Your task to perform on an android device: delete the emails in spam in the gmail app Image 0: 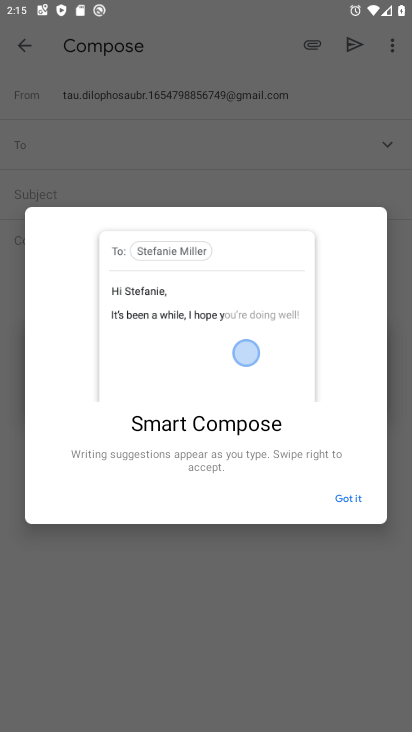
Step 0: press home button
Your task to perform on an android device: delete the emails in spam in the gmail app Image 1: 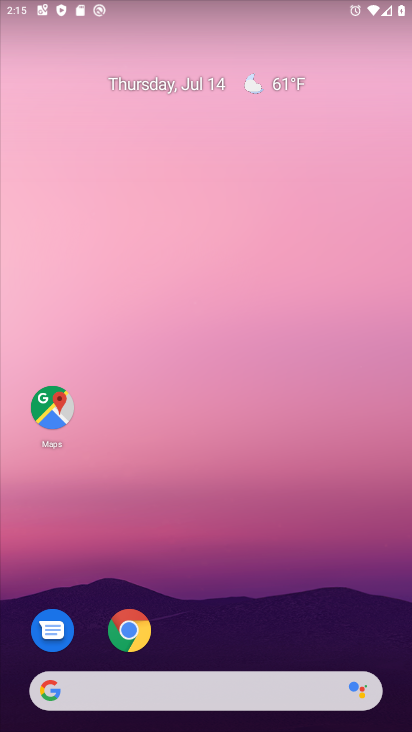
Step 1: drag from (209, 691) to (352, 85)
Your task to perform on an android device: delete the emails in spam in the gmail app Image 2: 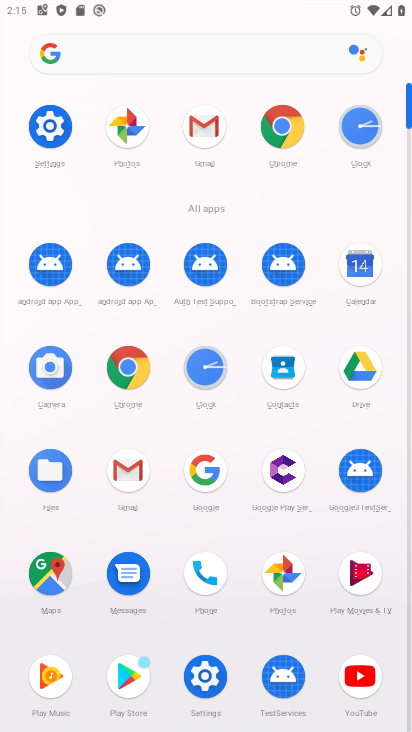
Step 2: click (128, 477)
Your task to perform on an android device: delete the emails in spam in the gmail app Image 3: 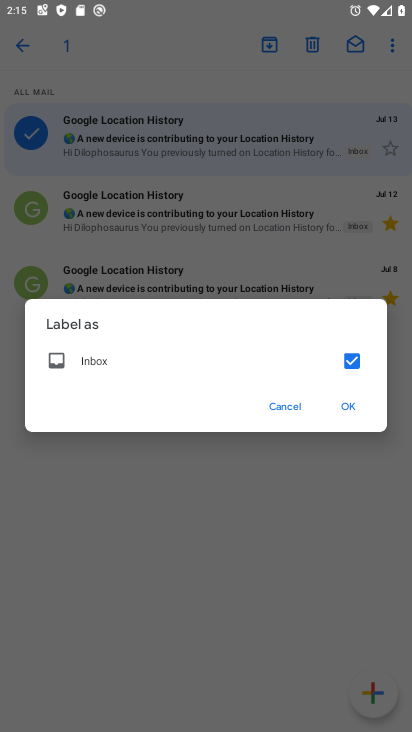
Step 3: click (350, 409)
Your task to perform on an android device: delete the emails in spam in the gmail app Image 4: 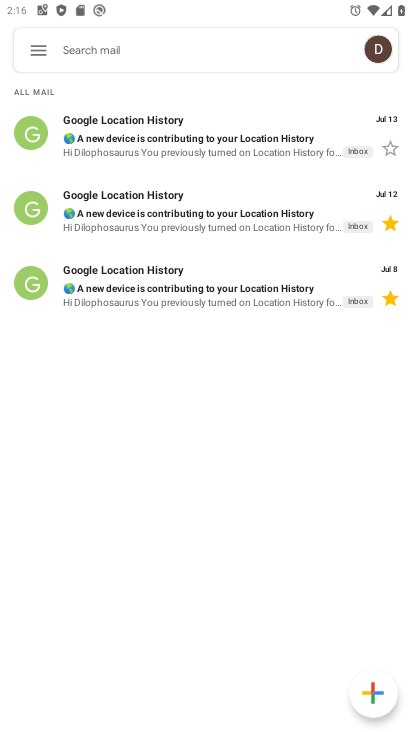
Step 4: click (39, 54)
Your task to perform on an android device: delete the emails in spam in the gmail app Image 5: 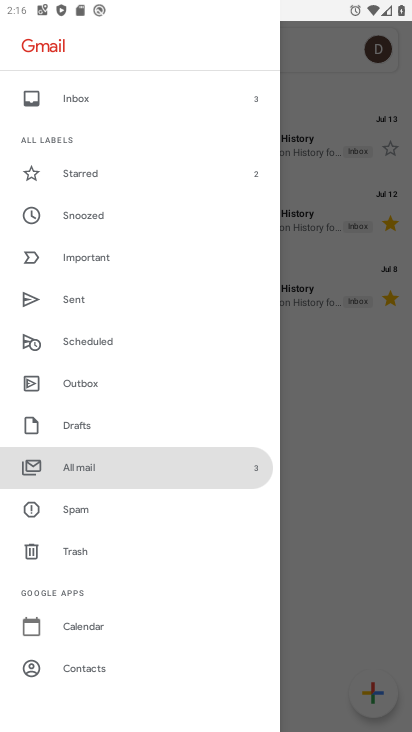
Step 5: click (79, 512)
Your task to perform on an android device: delete the emails in spam in the gmail app Image 6: 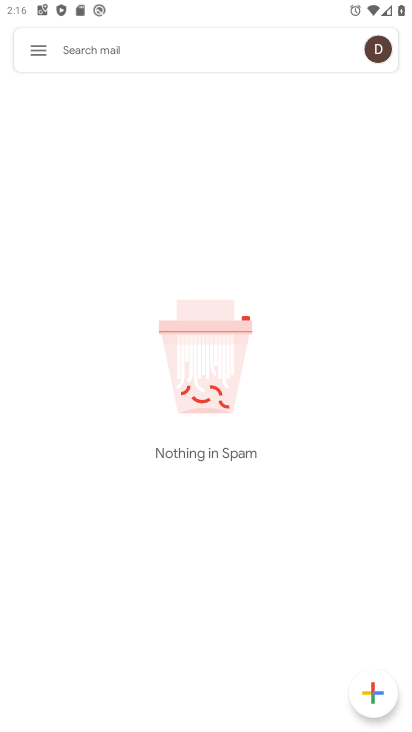
Step 6: task complete